Your task to perform on an android device: Open accessibility settings Image 0: 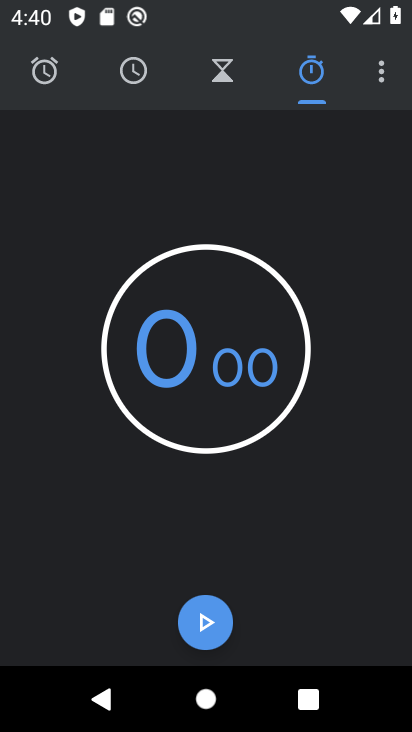
Step 0: press home button
Your task to perform on an android device: Open accessibility settings Image 1: 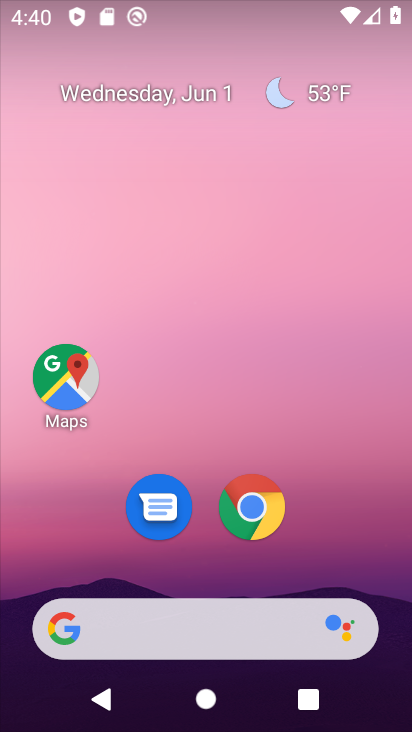
Step 1: drag from (355, 534) to (321, 2)
Your task to perform on an android device: Open accessibility settings Image 2: 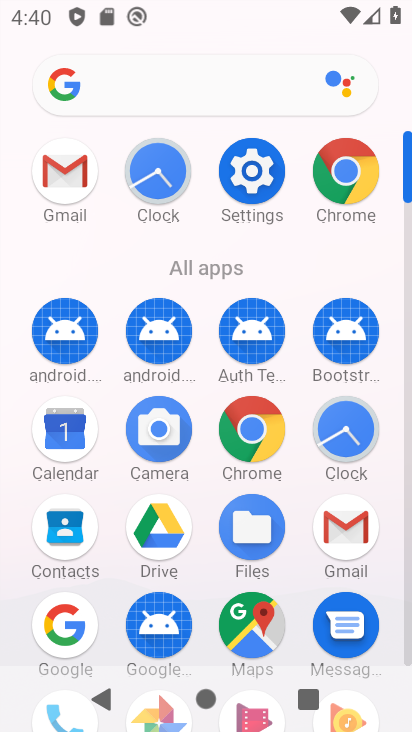
Step 2: click (253, 164)
Your task to perform on an android device: Open accessibility settings Image 3: 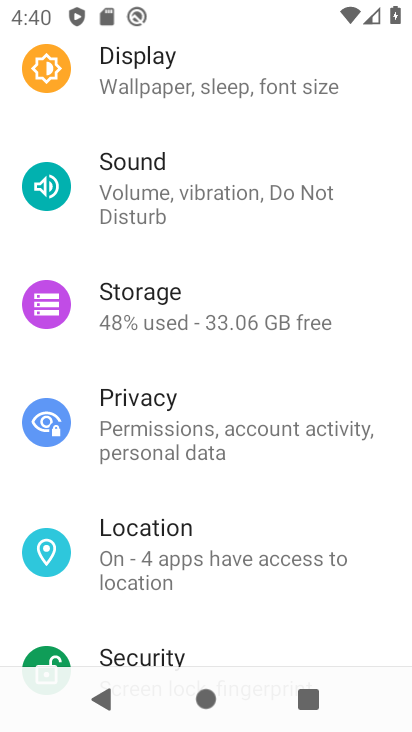
Step 3: drag from (150, 269) to (241, 703)
Your task to perform on an android device: Open accessibility settings Image 4: 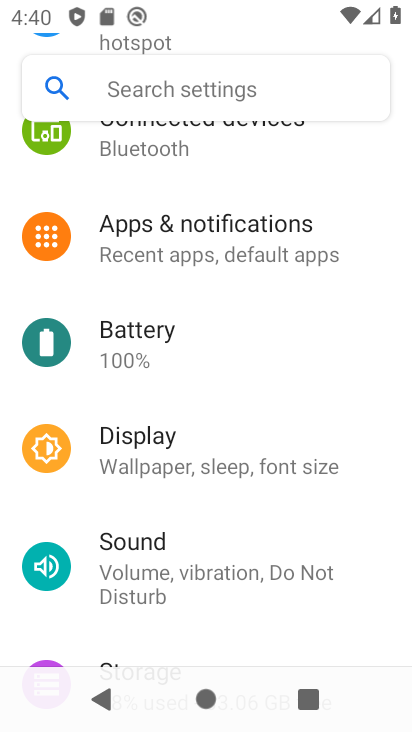
Step 4: drag from (185, 235) to (266, 731)
Your task to perform on an android device: Open accessibility settings Image 5: 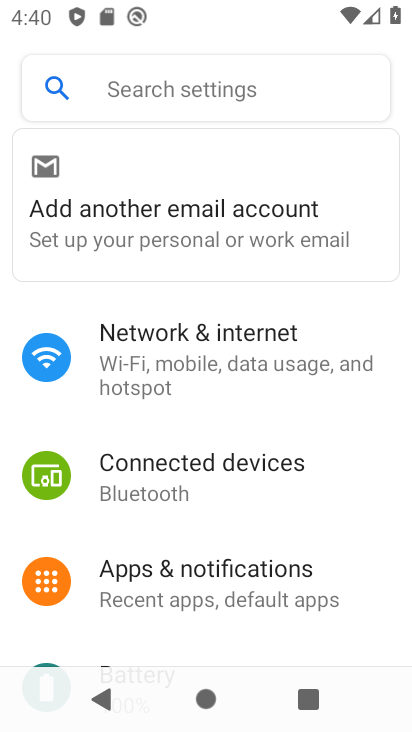
Step 5: drag from (245, 589) to (208, 163)
Your task to perform on an android device: Open accessibility settings Image 6: 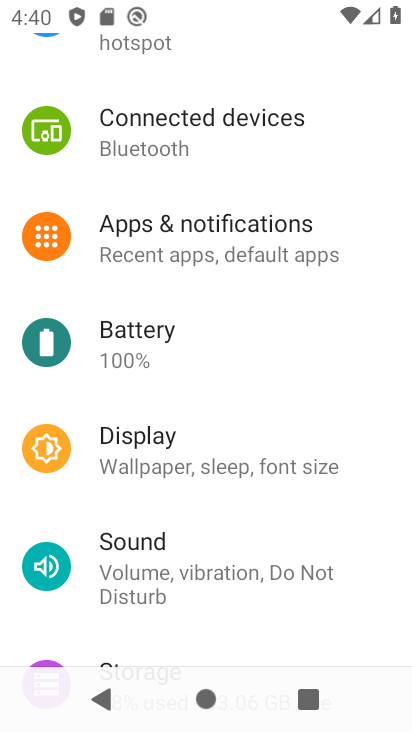
Step 6: drag from (263, 602) to (225, 175)
Your task to perform on an android device: Open accessibility settings Image 7: 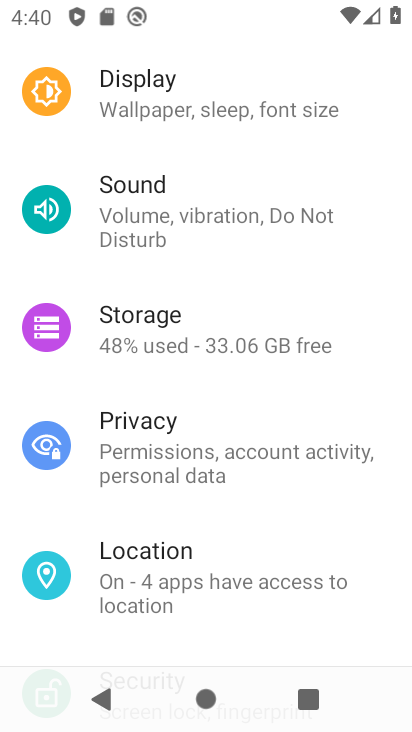
Step 7: drag from (248, 555) to (216, 176)
Your task to perform on an android device: Open accessibility settings Image 8: 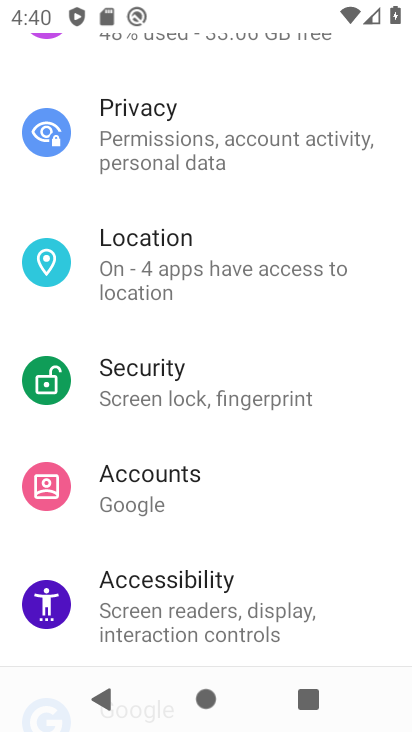
Step 8: drag from (214, 492) to (170, 129)
Your task to perform on an android device: Open accessibility settings Image 9: 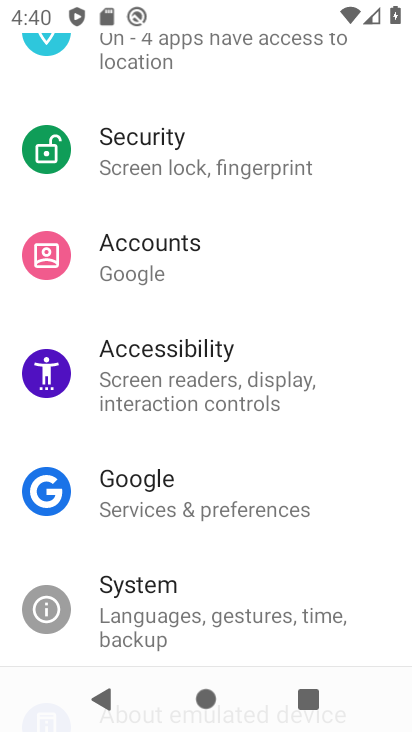
Step 9: click (170, 360)
Your task to perform on an android device: Open accessibility settings Image 10: 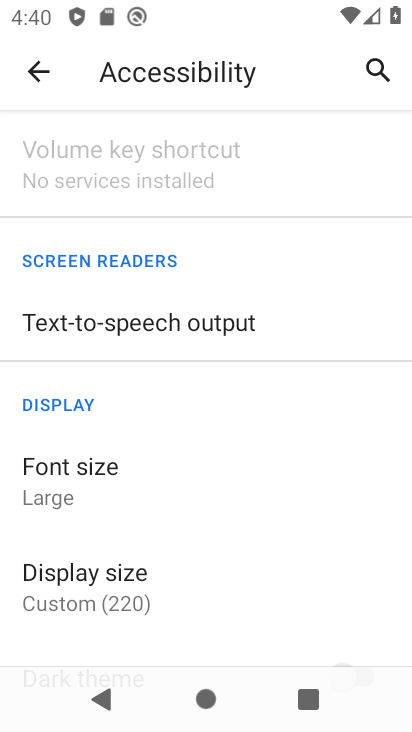
Step 10: task complete